Your task to perform on an android device: Open the calendar app, open the side menu, and click the "Day" option Image 0: 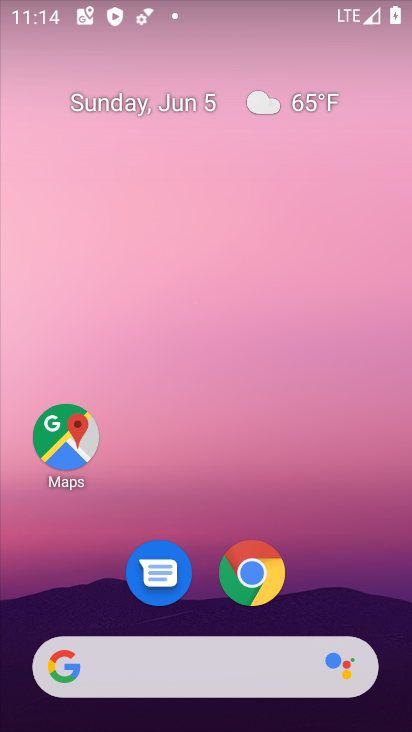
Step 0: drag from (248, 493) to (286, 99)
Your task to perform on an android device: Open the calendar app, open the side menu, and click the "Day" option Image 1: 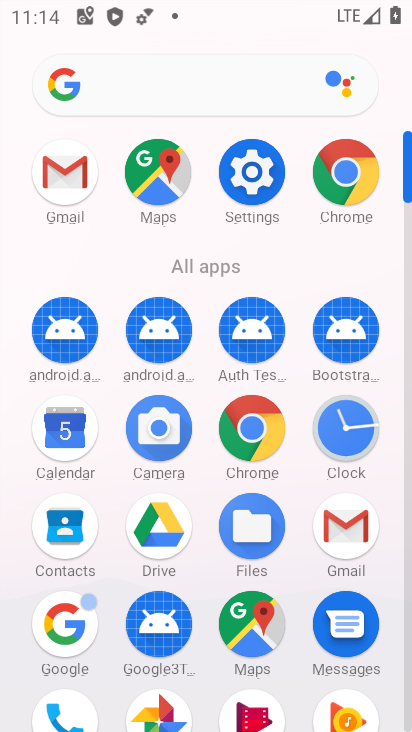
Step 1: drag from (235, 271) to (203, 43)
Your task to perform on an android device: Open the calendar app, open the side menu, and click the "Day" option Image 2: 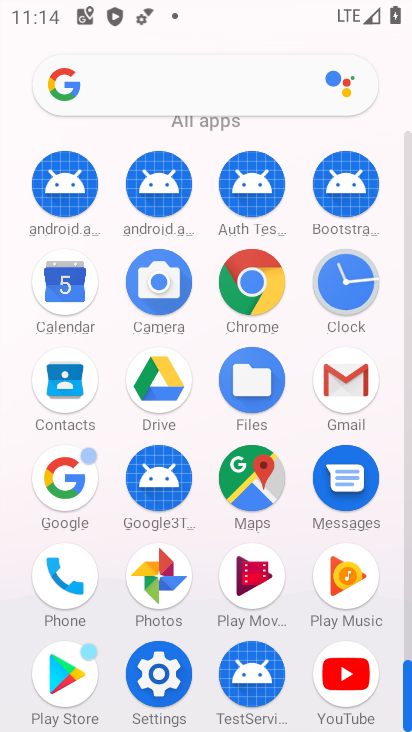
Step 2: click (67, 307)
Your task to perform on an android device: Open the calendar app, open the side menu, and click the "Day" option Image 3: 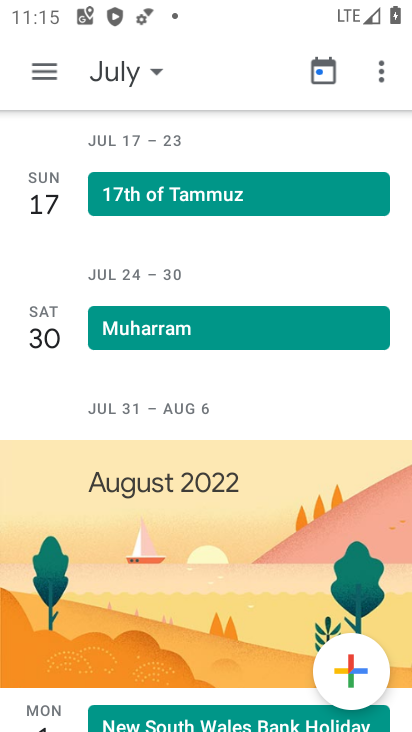
Step 3: click (34, 91)
Your task to perform on an android device: Open the calendar app, open the side menu, and click the "Day" option Image 4: 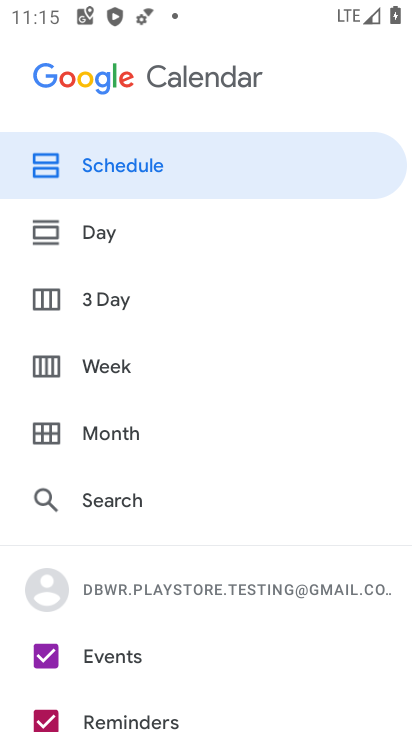
Step 4: click (139, 243)
Your task to perform on an android device: Open the calendar app, open the side menu, and click the "Day" option Image 5: 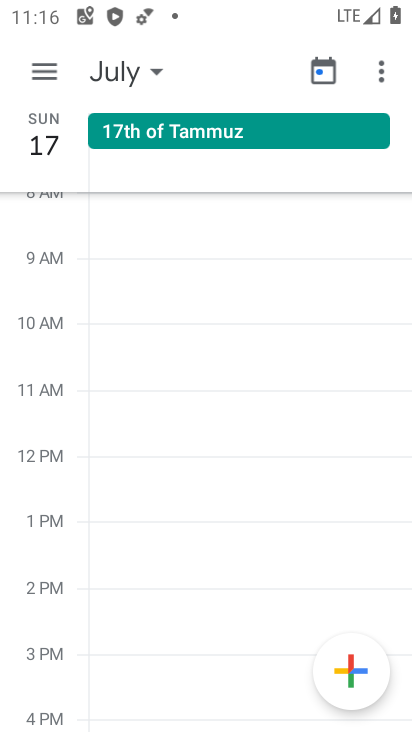
Step 5: task complete